Your task to perform on an android device: Open Youtube and go to the subscriptions tab Image 0: 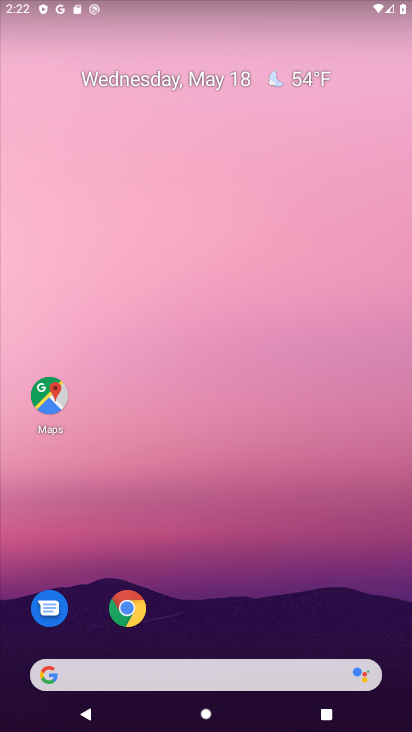
Step 0: drag from (282, 599) to (262, 40)
Your task to perform on an android device: Open Youtube and go to the subscriptions tab Image 1: 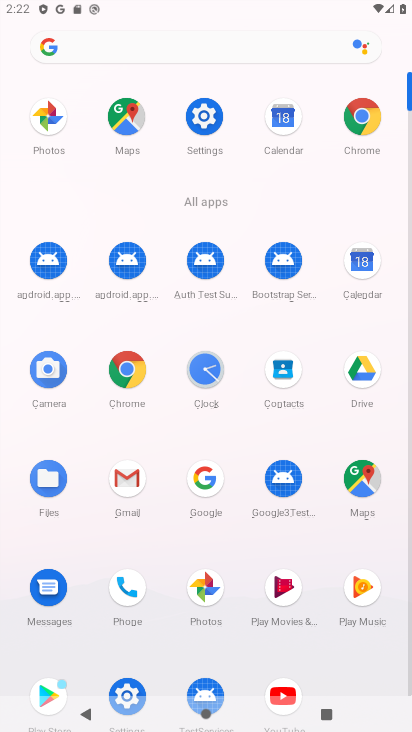
Step 1: click (288, 684)
Your task to perform on an android device: Open Youtube and go to the subscriptions tab Image 2: 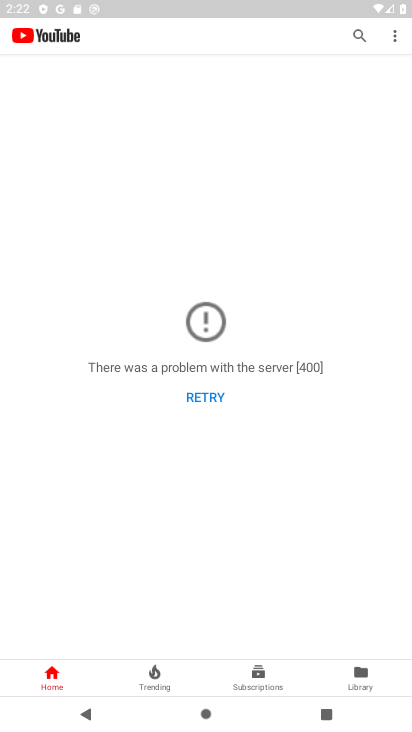
Step 2: click (253, 681)
Your task to perform on an android device: Open Youtube and go to the subscriptions tab Image 3: 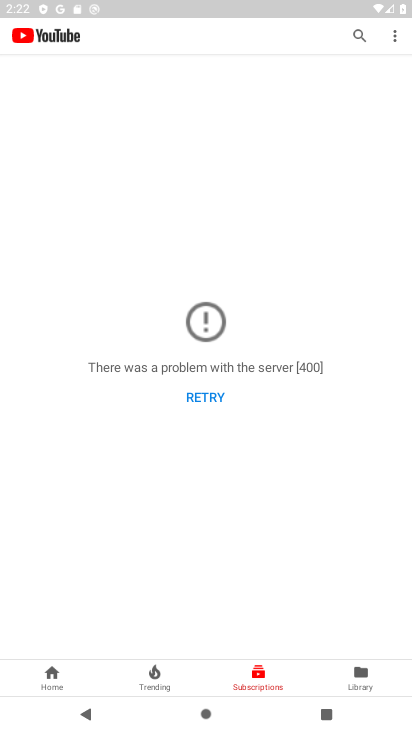
Step 3: task complete